Your task to perform on an android device: see creations saved in the google photos Image 0: 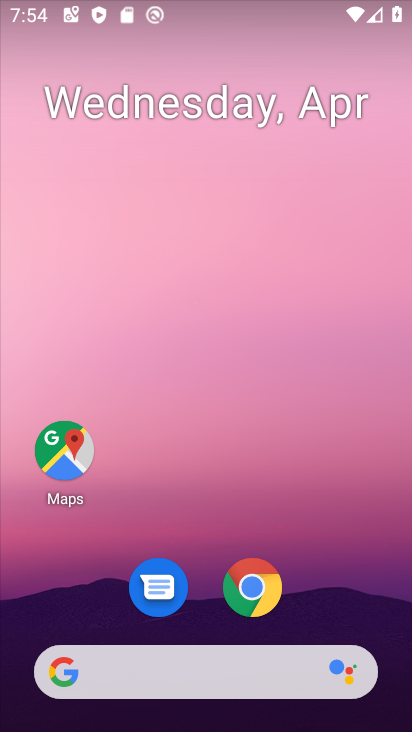
Step 0: drag from (303, 509) to (283, 64)
Your task to perform on an android device: see creations saved in the google photos Image 1: 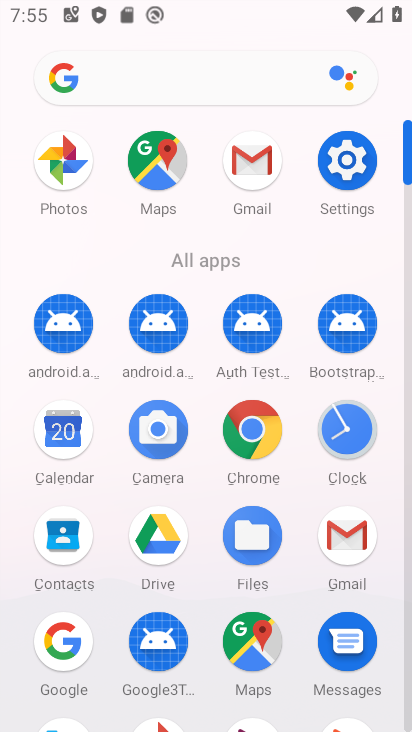
Step 1: click (56, 169)
Your task to perform on an android device: see creations saved in the google photos Image 2: 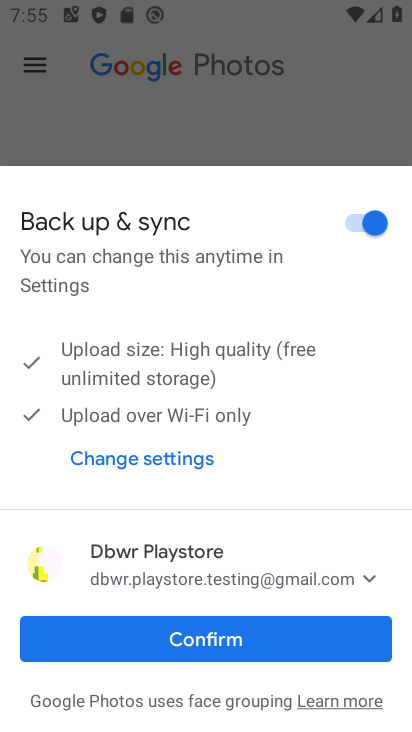
Step 2: click (215, 632)
Your task to perform on an android device: see creations saved in the google photos Image 3: 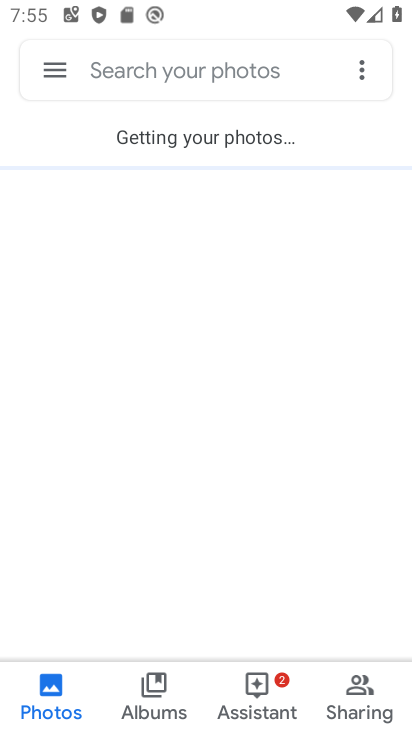
Step 3: click (157, 82)
Your task to perform on an android device: see creations saved in the google photos Image 4: 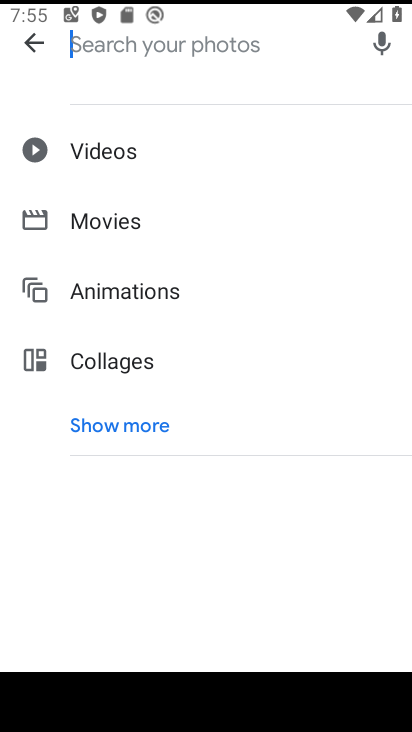
Step 4: click (126, 426)
Your task to perform on an android device: see creations saved in the google photos Image 5: 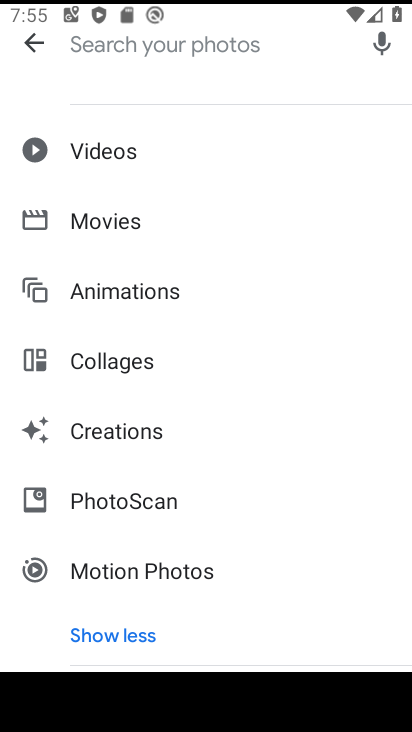
Step 5: click (124, 431)
Your task to perform on an android device: see creations saved in the google photos Image 6: 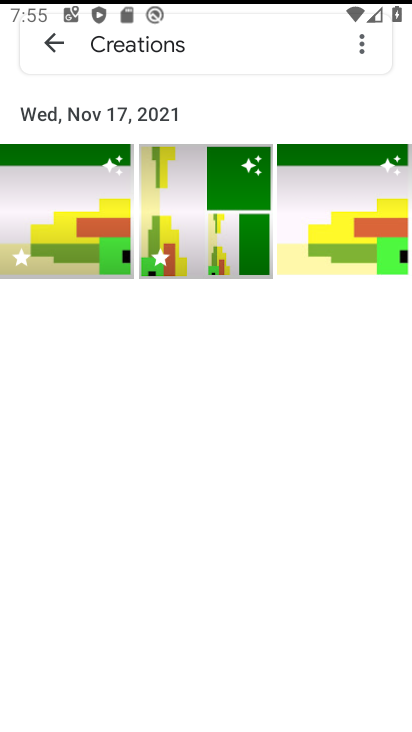
Step 6: task complete